Your task to perform on an android device: check data usage Image 0: 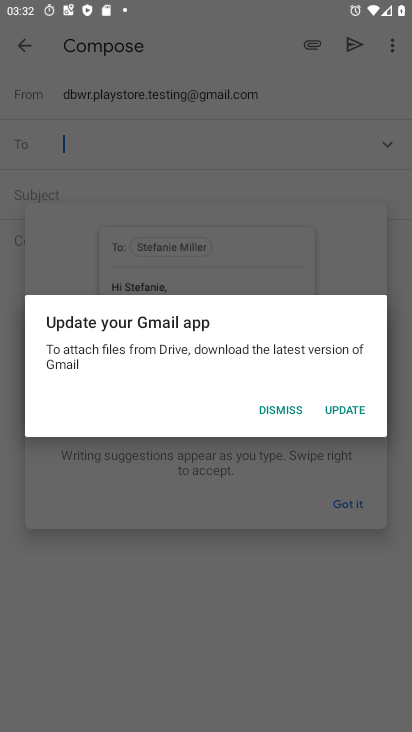
Step 0: press home button
Your task to perform on an android device: check data usage Image 1: 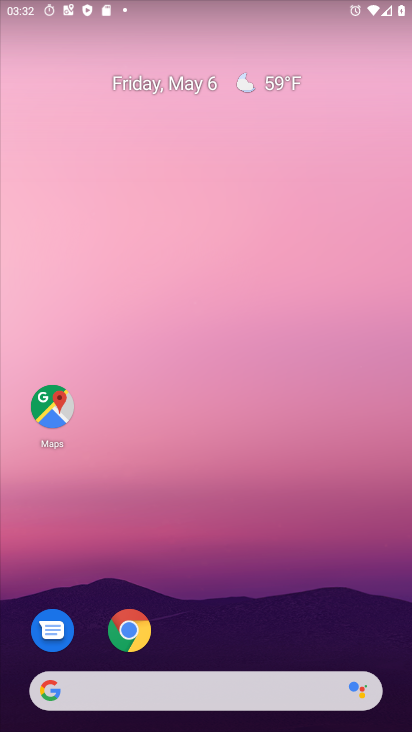
Step 1: drag from (216, 629) to (216, 206)
Your task to perform on an android device: check data usage Image 2: 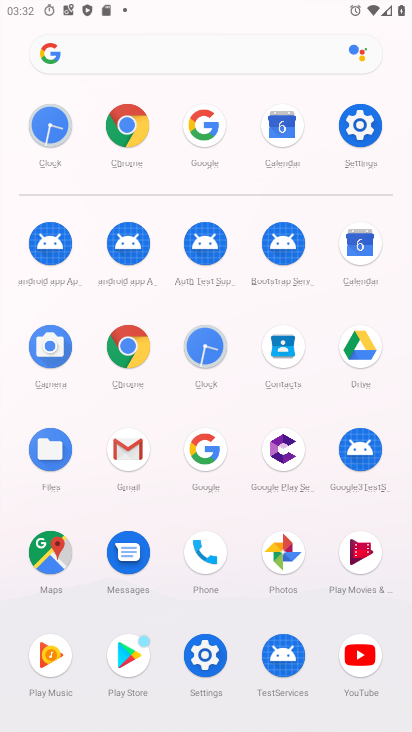
Step 2: click (372, 125)
Your task to perform on an android device: check data usage Image 3: 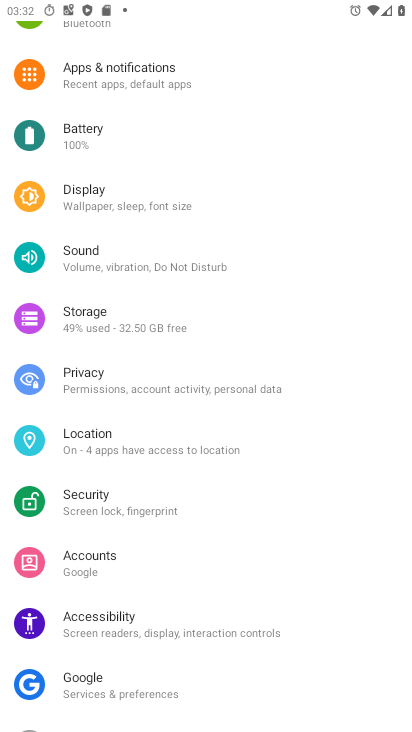
Step 3: drag from (140, 143) to (173, 551)
Your task to perform on an android device: check data usage Image 4: 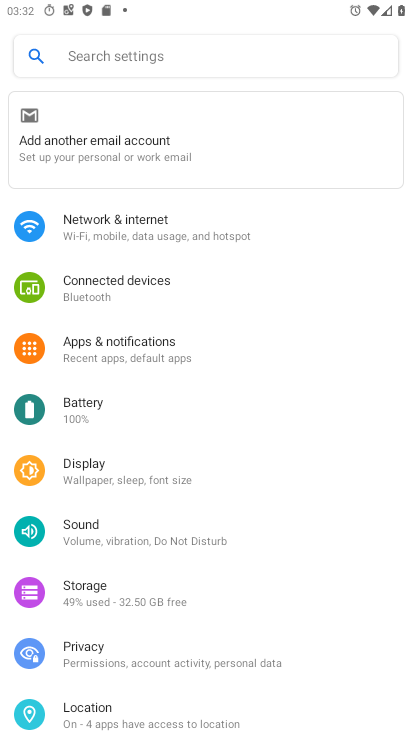
Step 4: click (143, 234)
Your task to perform on an android device: check data usage Image 5: 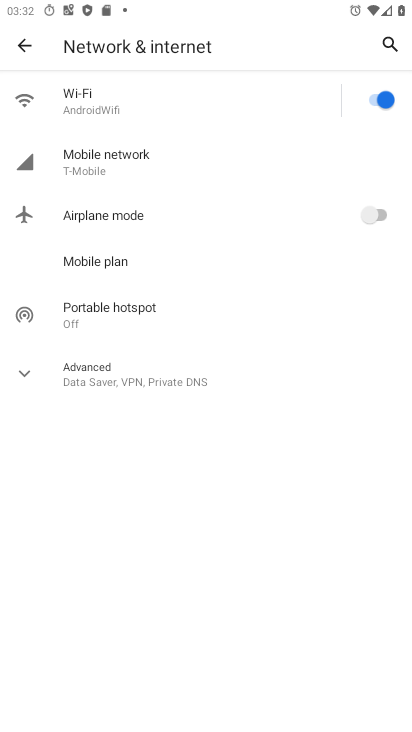
Step 5: click (183, 169)
Your task to perform on an android device: check data usage Image 6: 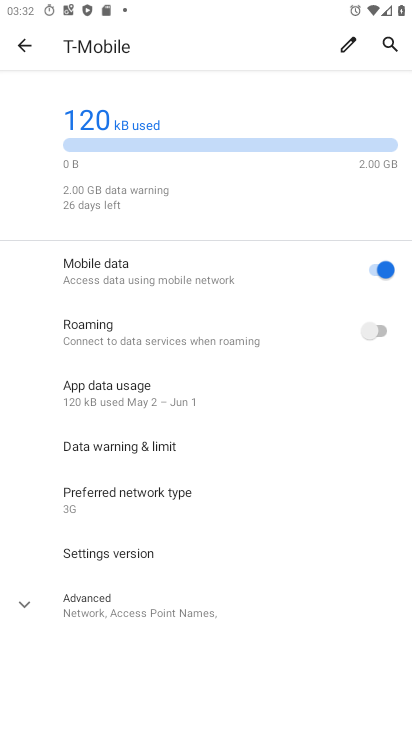
Step 6: click (148, 409)
Your task to perform on an android device: check data usage Image 7: 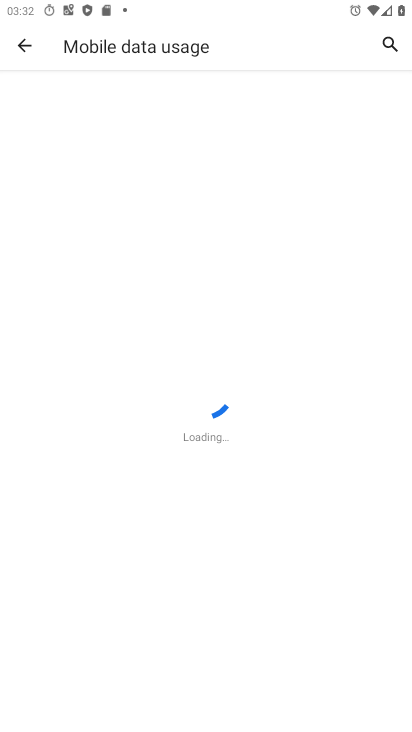
Step 7: task complete